Your task to perform on an android device: clear history in the chrome app Image 0: 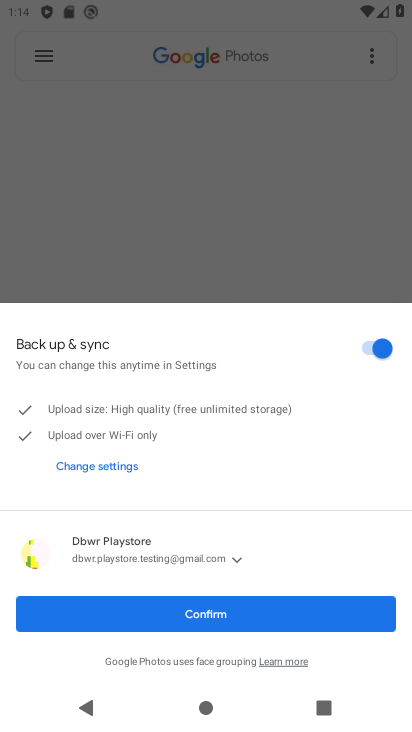
Step 0: press home button
Your task to perform on an android device: clear history in the chrome app Image 1: 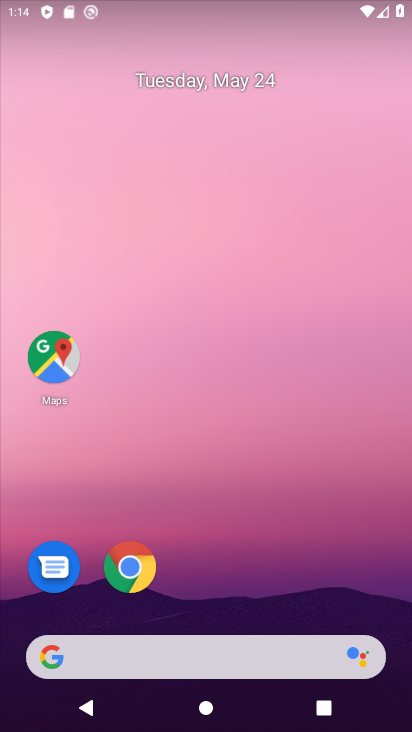
Step 1: click (121, 575)
Your task to perform on an android device: clear history in the chrome app Image 2: 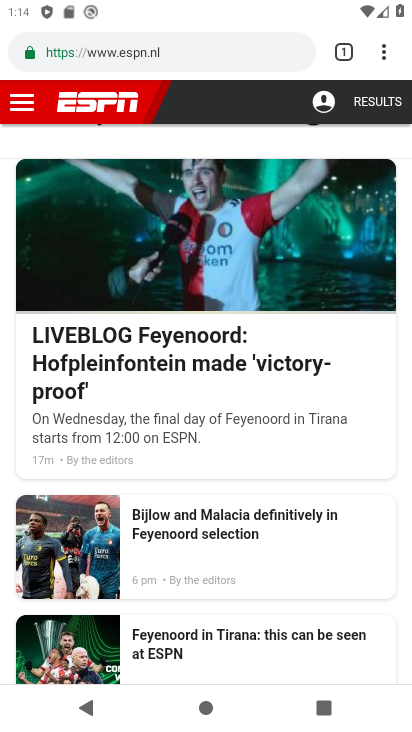
Step 2: drag from (390, 44) to (310, 297)
Your task to perform on an android device: clear history in the chrome app Image 3: 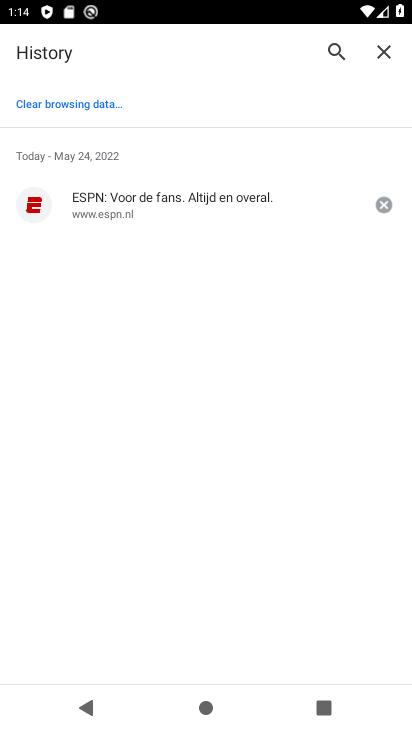
Step 3: click (60, 104)
Your task to perform on an android device: clear history in the chrome app Image 4: 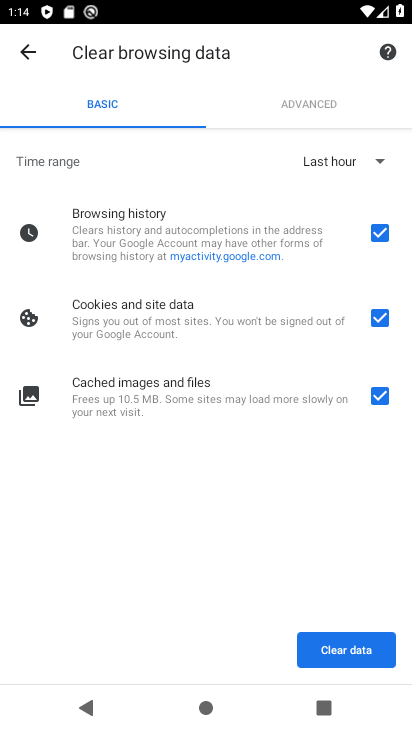
Step 4: click (349, 646)
Your task to perform on an android device: clear history in the chrome app Image 5: 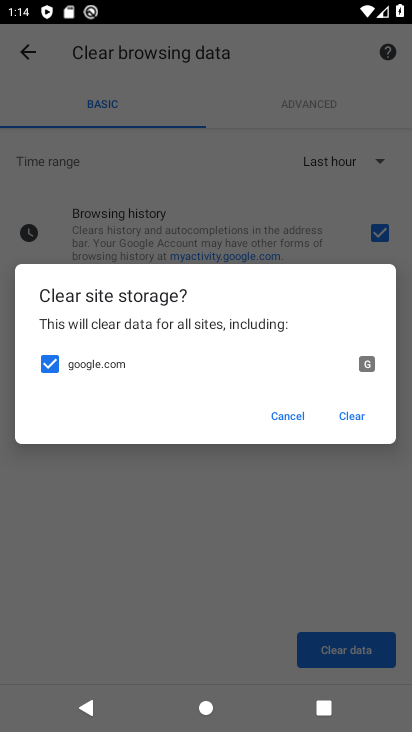
Step 5: click (350, 413)
Your task to perform on an android device: clear history in the chrome app Image 6: 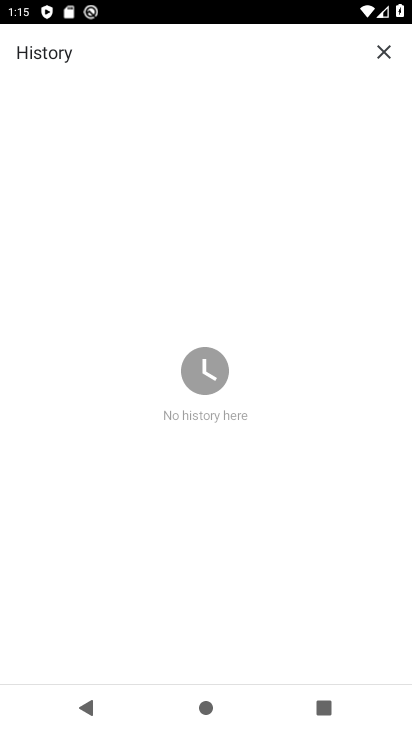
Step 6: task complete